Your task to perform on an android device: toggle notification dots Image 0: 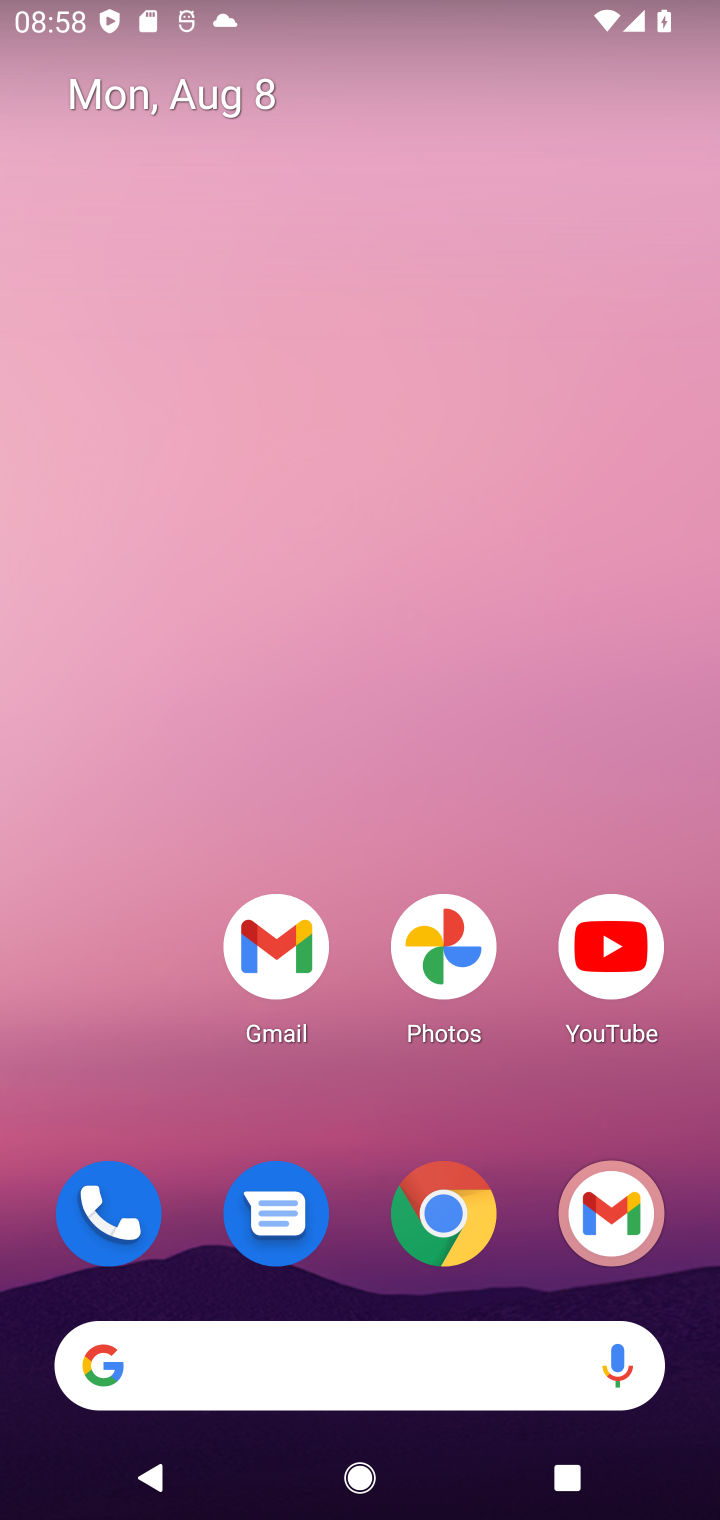
Step 0: drag from (374, 1132) to (282, 264)
Your task to perform on an android device: toggle notification dots Image 1: 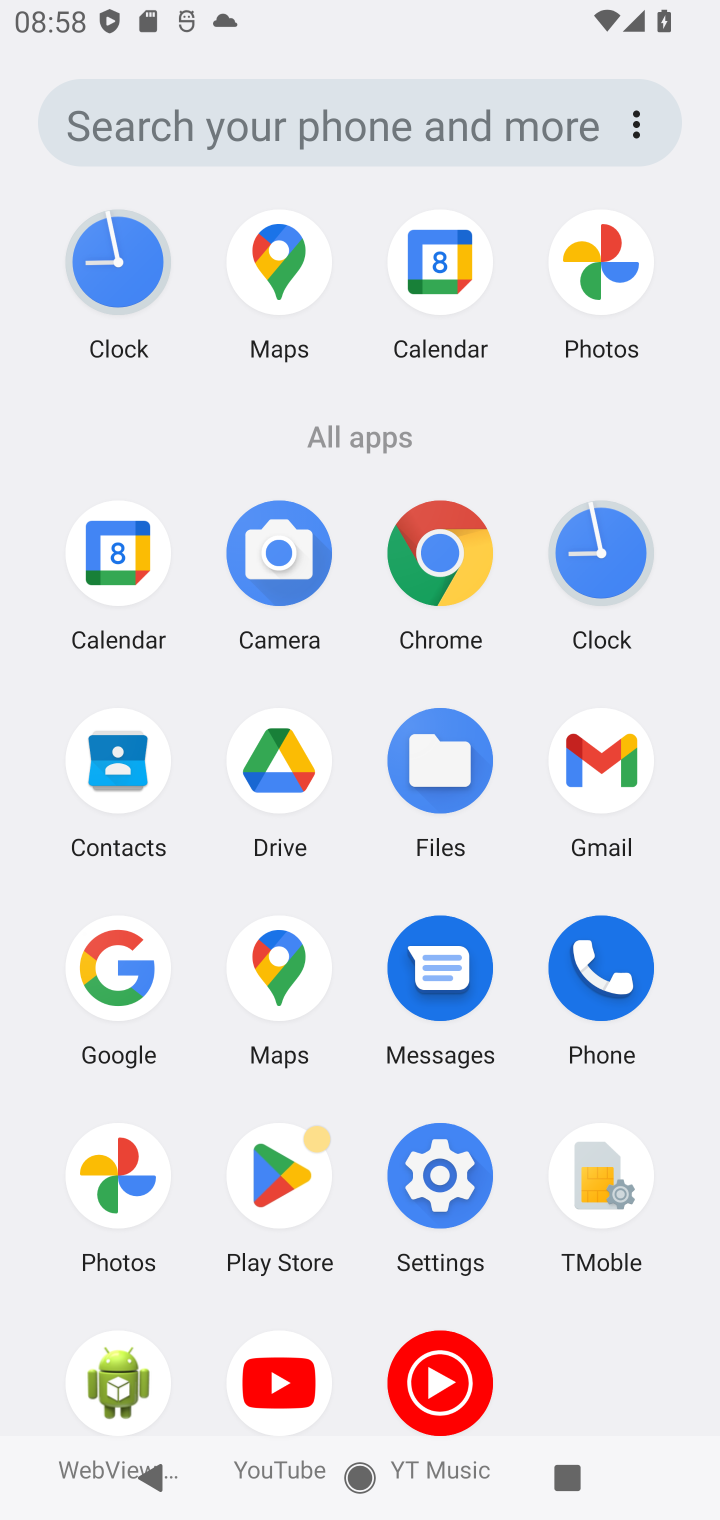
Step 1: click (427, 1159)
Your task to perform on an android device: toggle notification dots Image 2: 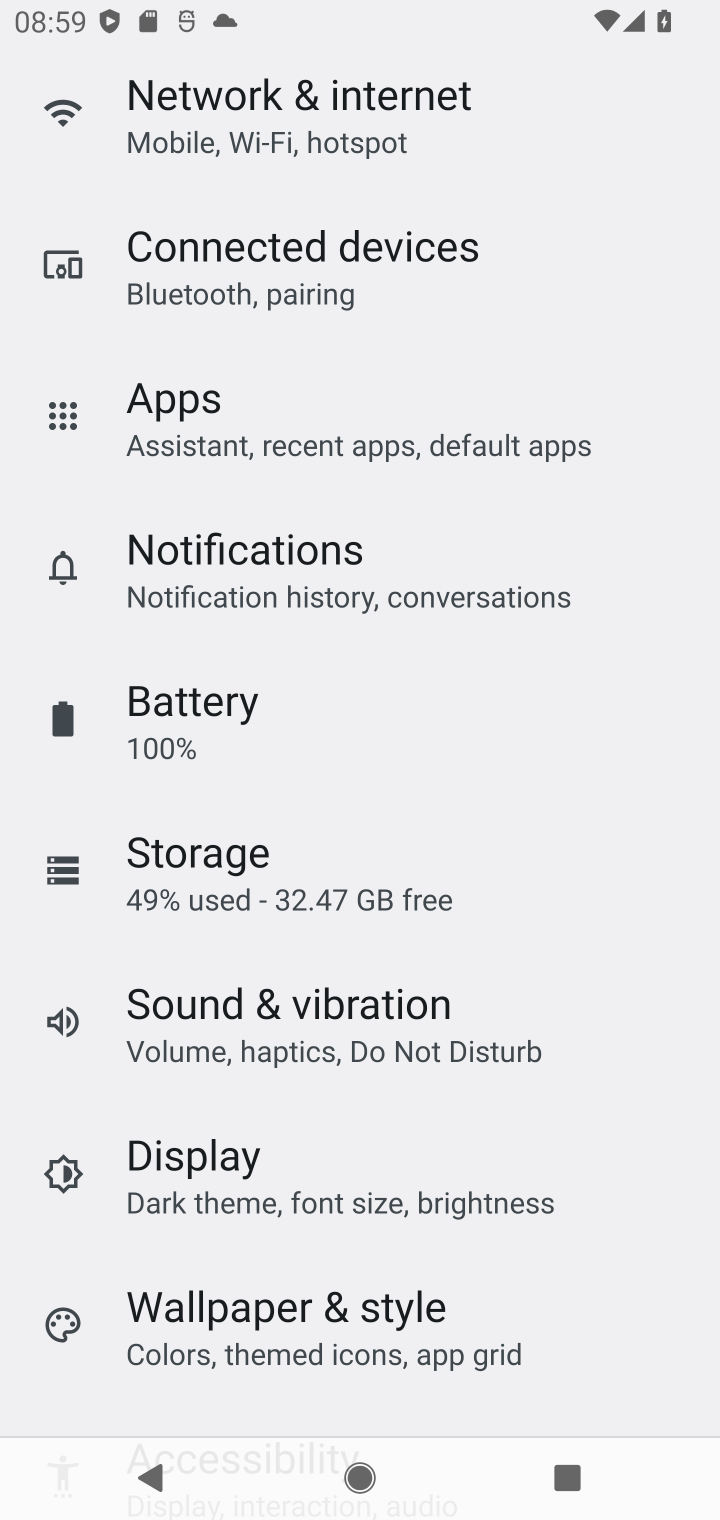
Step 2: click (221, 527)
Your task to perform on an android device: toggle notification dots Image 3: 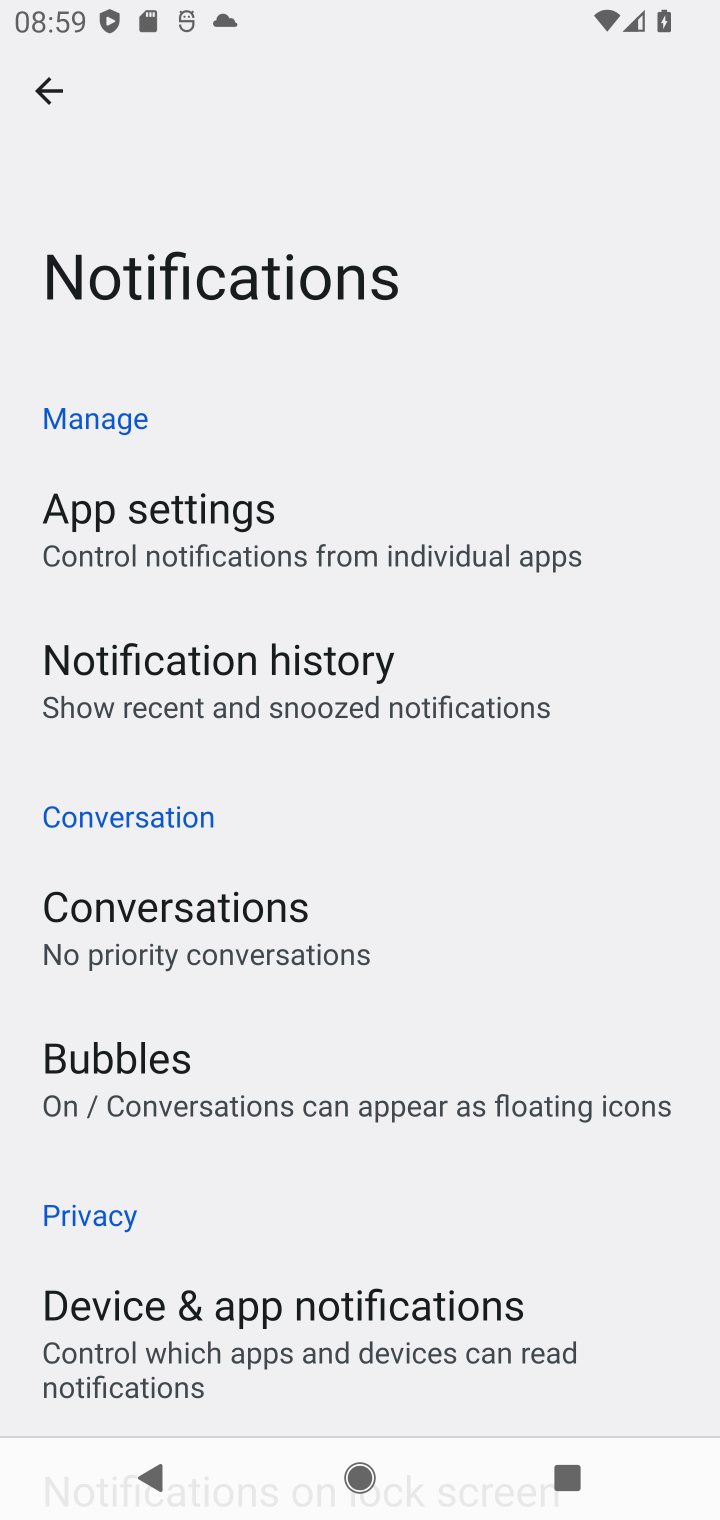
Step 3: drag from (291, 1193) to (251, 533)
Your task to perform on an android device: toggle notification dots Image 4: 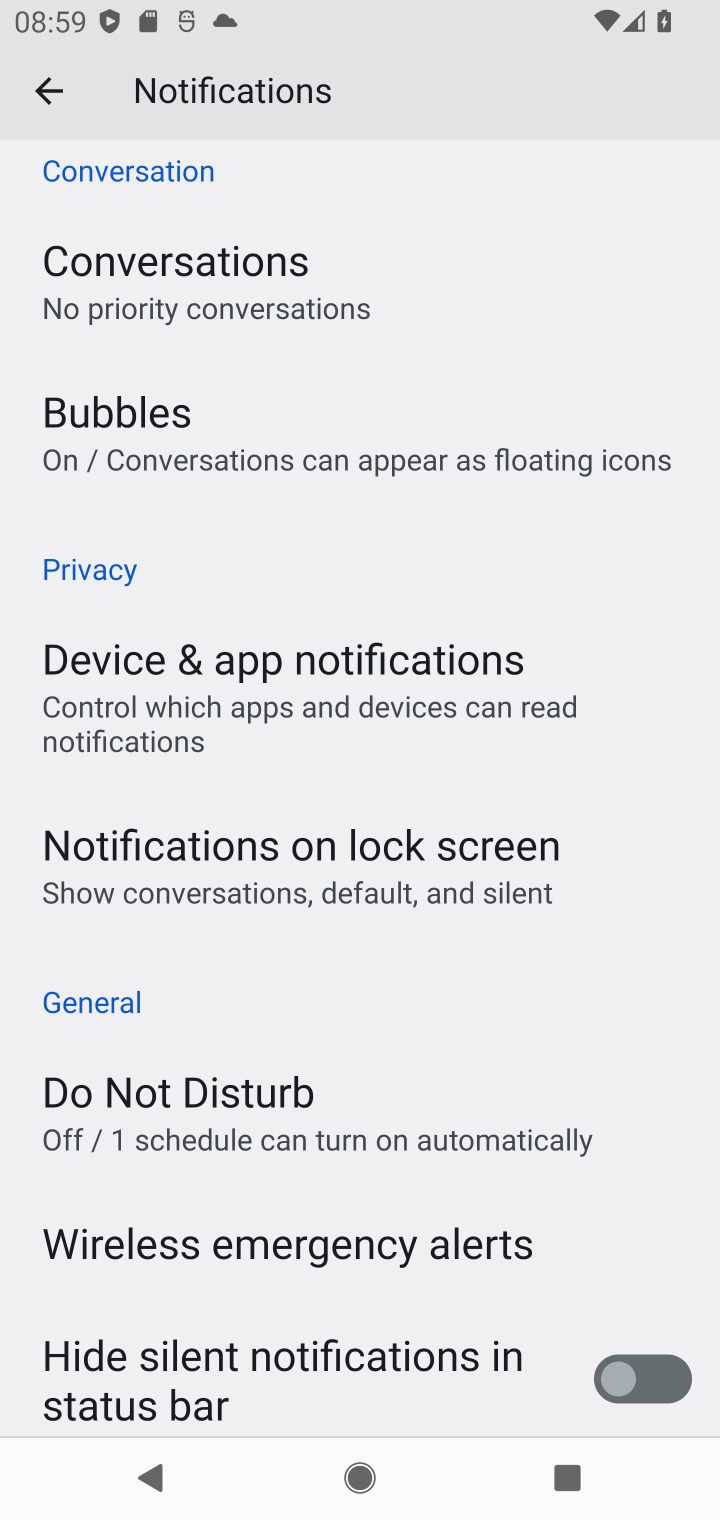
Step 4: drag from (367, 1289) to (292, 473)
Your task to perform on an android device: toggle notification dots Image 5: 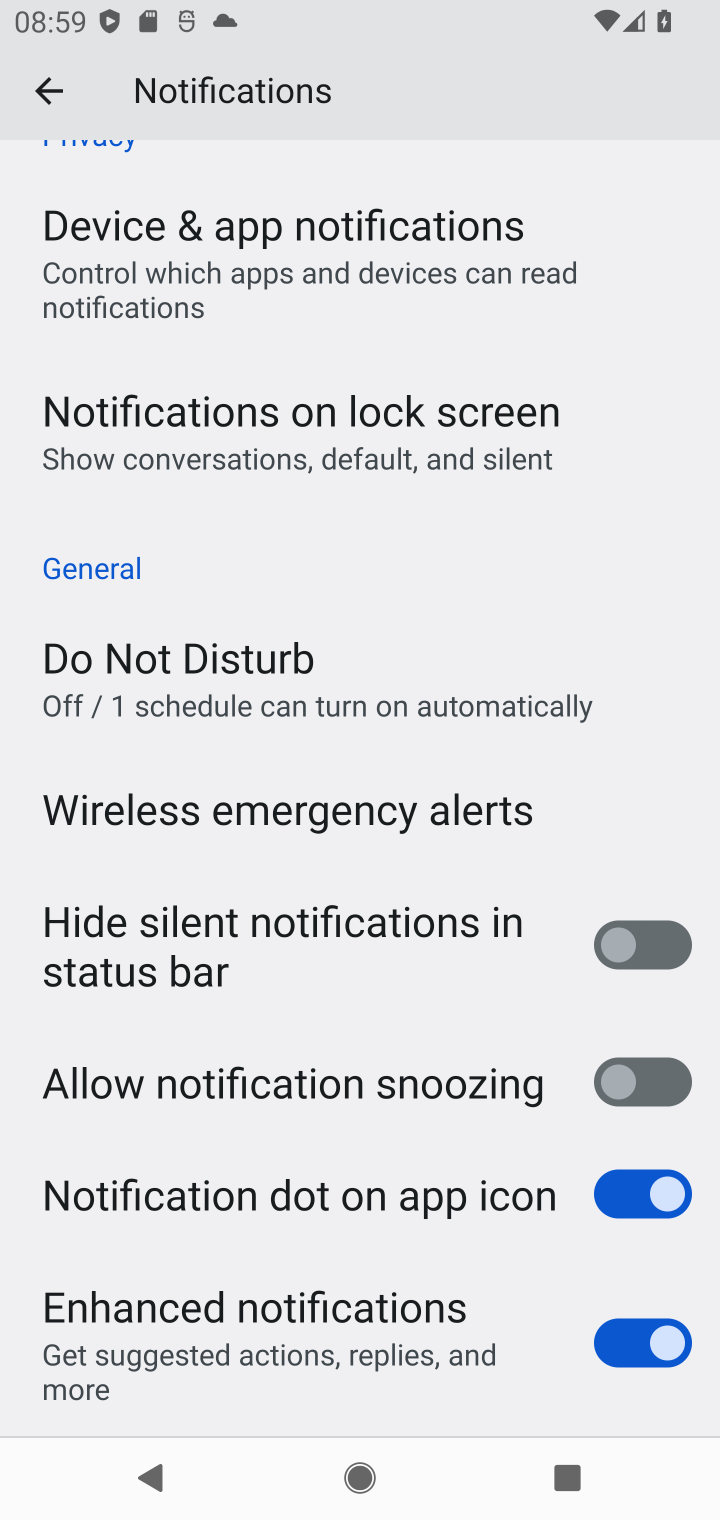
Step 5: click (642, 1189)
Your task to perform on an android device: toggle notification dots Image 6: 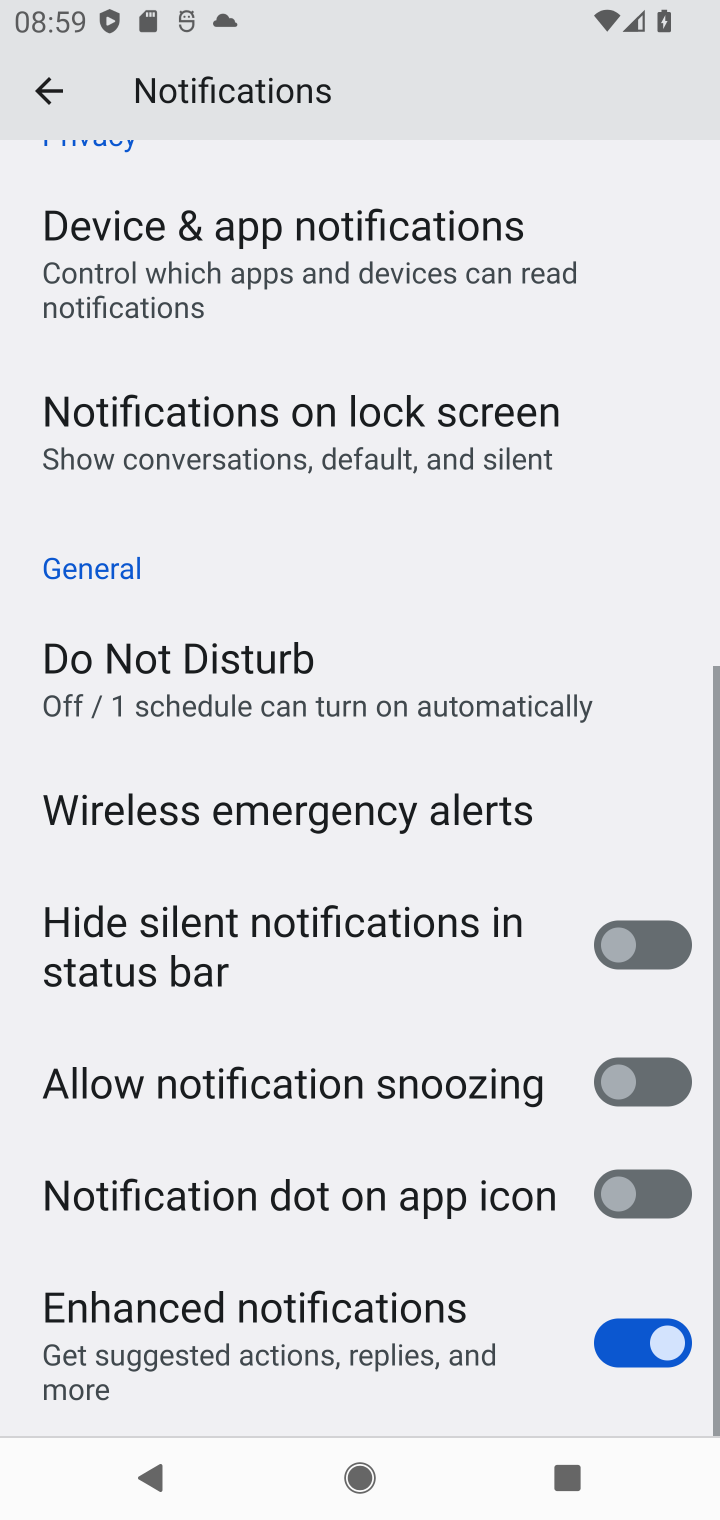
Step 6: task complete